Your task to perform on an android device: Open calendar and show me the first week of next month Image 0: 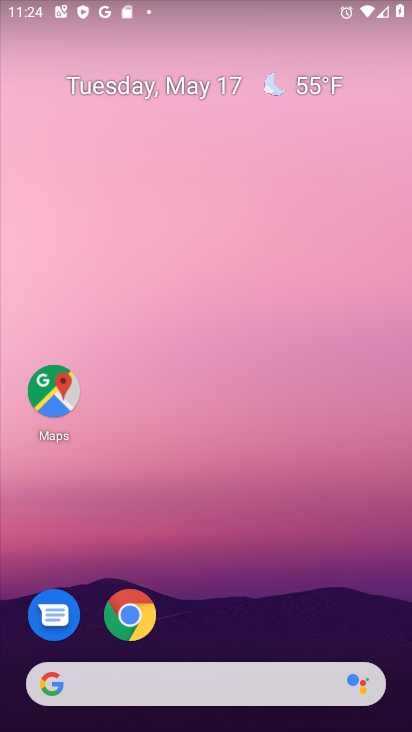
Step 0: drag from (252, 594) to (286, 128)
Your task to perform on an android device: Open calendar and show me the first week of next month Image 1: 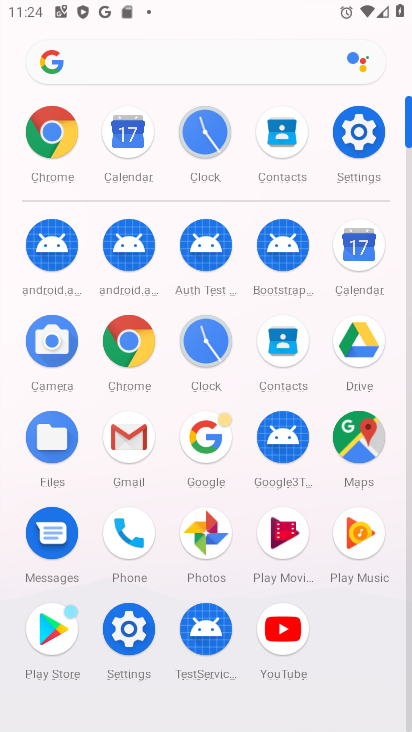
Step 1: click (349, 241)
Your task to perform on an android device: Open calendar and show me the first week of next month Image 2: 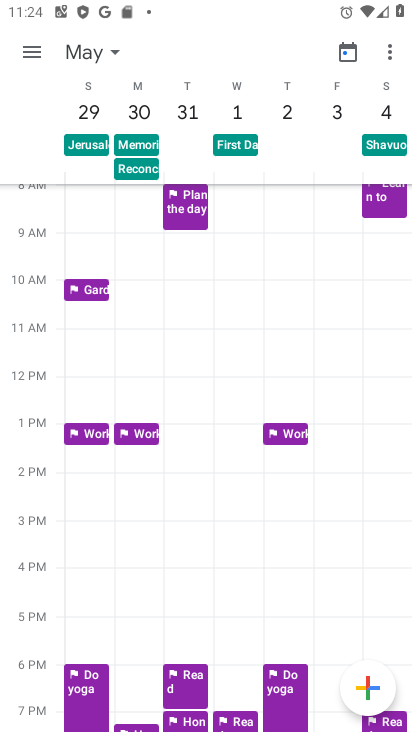
Step 2: click (90, 49)
Your task to perform on an android device: Open calendar and show me the first week of next month Image 3: 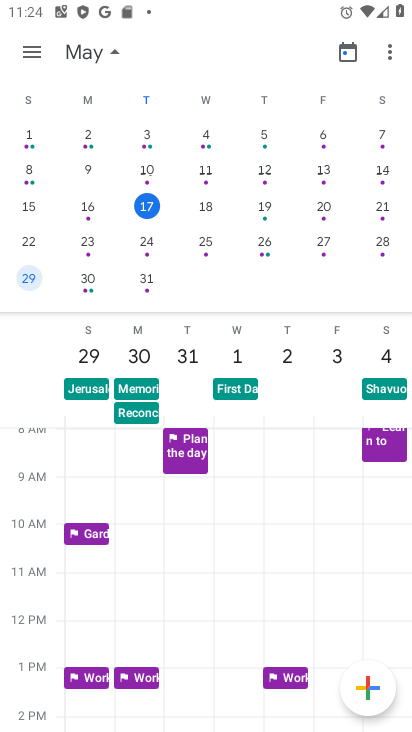
Step 3: drag from (358, 228) to (10, 204)
Your task to perform on an android device: Open calendar and show me the first week of next month Image 4: 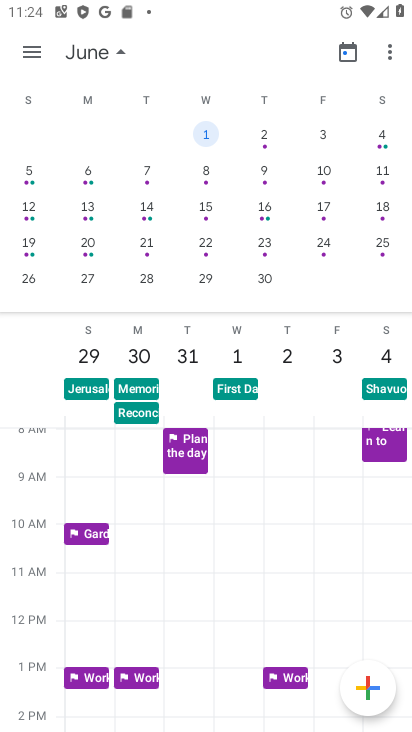
Step 4: click (272, 133)
Your task to perform on an android device: Open calendar and show me the first week of next month Image 5: 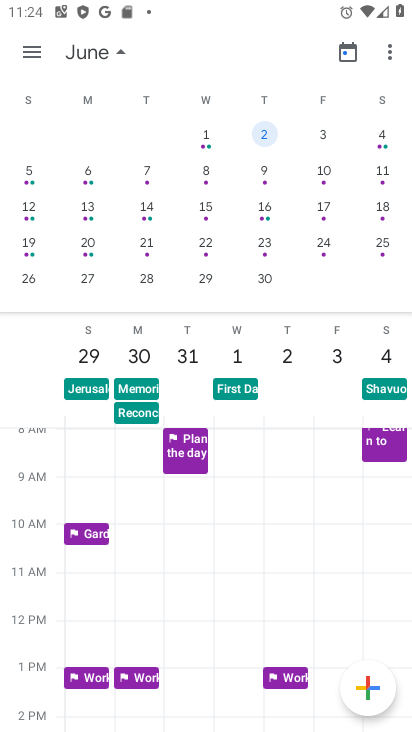
Step 5: click (12, 45)
Your task to perform on an android device: Open calendar and show me the first week of next month Image 6: 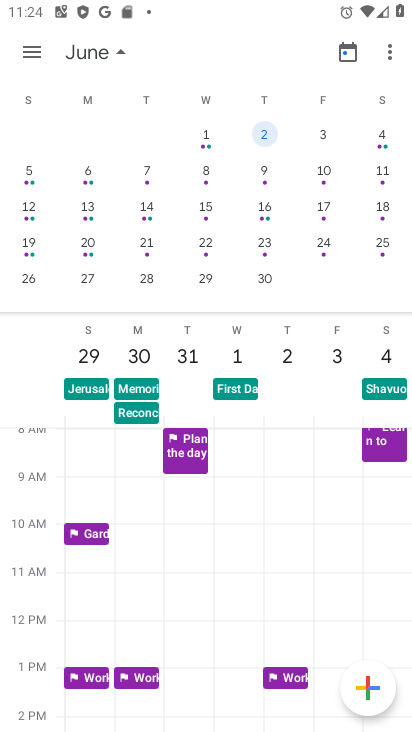
Step 6: click (33, 55)
Your task to perform on an android device: Open calendar and show me the first week of next month Image 7: 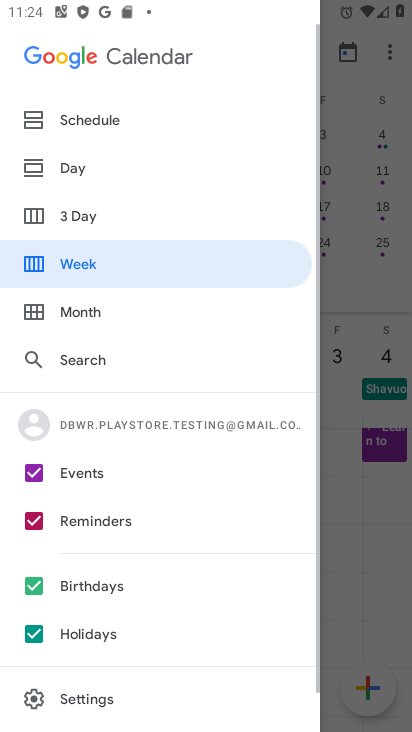
Step 7: click (78, 263)
Your task to perform on an android device: Open calendar and show me the first week of next month Image 8: 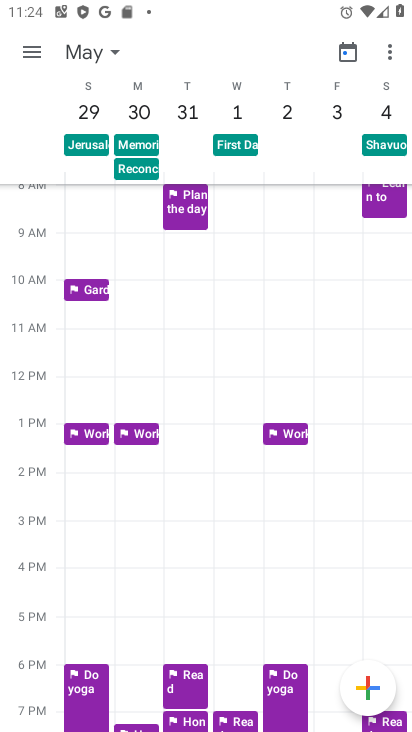
Step 8: drag from (313, 117) to (116, 112)
Your task to perform on an android device: Open calendar and show me the first week of next month Image 9: 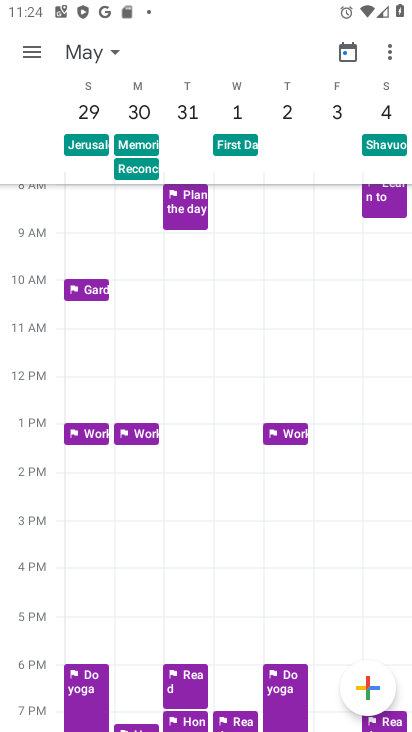
Step 9: drag from (385, 122) to (107, 129)
Your task to perform on an android device: Open calendar and show me the first week of next month Image 10: 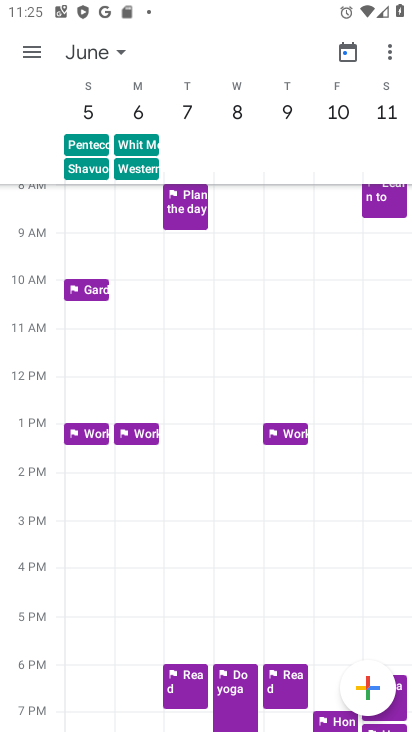
Step 10: drag from (119, 116) to (402, 146)
Your task to perform on an android device: Open calendar and show me the first week of next month Image 11: 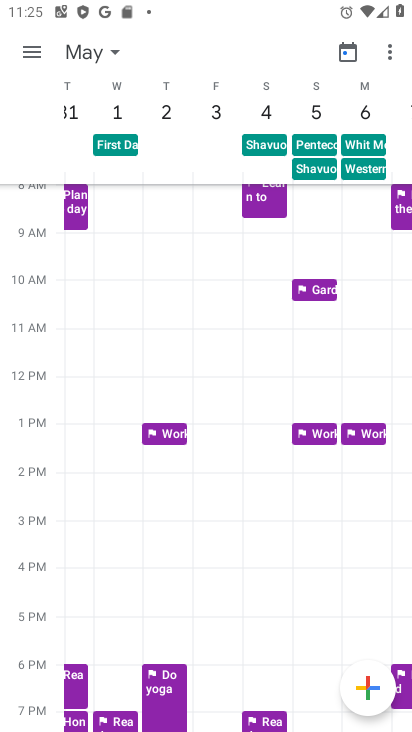
Step 11: drag from (361, 151) to (53, 135)
Your task to perform on an android device: Open calendar and show me the first week of next month Image 12: 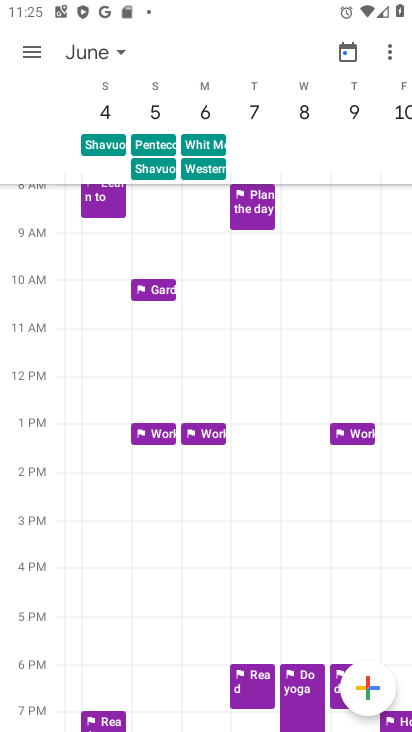
Step 12: click (49, 135)
Your task to perform on an android device: Open calendar and show me the first week of next month Image 13: 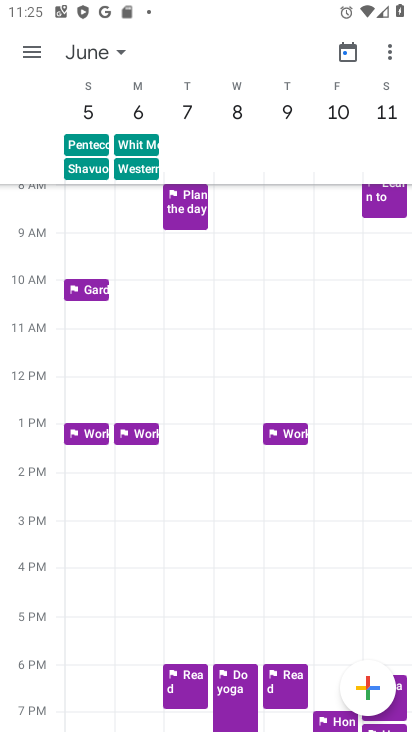
Step 13: task complete